Your task to perform on an android device: Go to Maps Image 0: 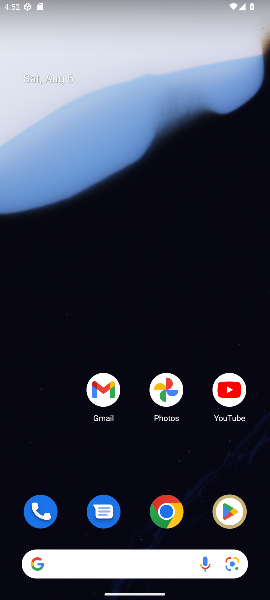
Step 0: drag from (138, 283) to (181, 17)
Your task to perform on an android device: Go to Maps Image 1: 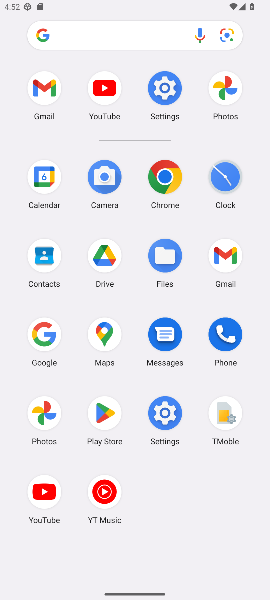
Step 1: click (108, 339)
Your task to perform on an android device: Go to Maps Image 2: 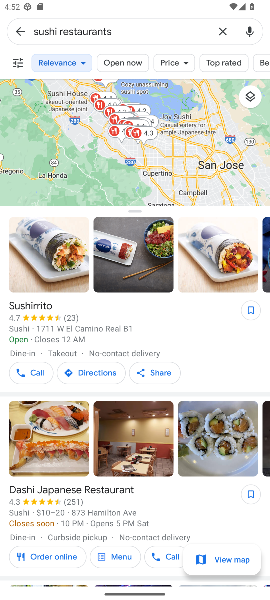
Step 2: click (20, 26)
Your task to perform on an android device: Go to Maps Image 3: 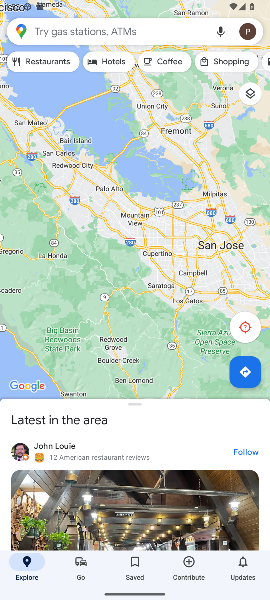
Step 3: task complete